Your task to perform on an android device: Open Google Chrome and click the shortcut for Amazon.com Image 0: 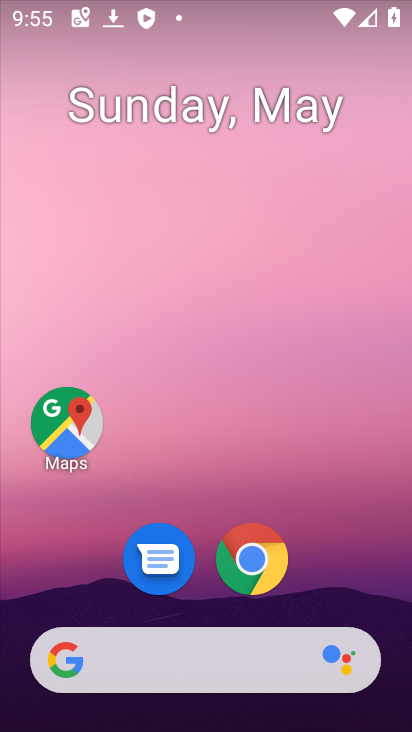
Step 0: press home button
Your task to perform on an android device: Open Google Chrome and click the shortcut for Amazon.com Image 1: 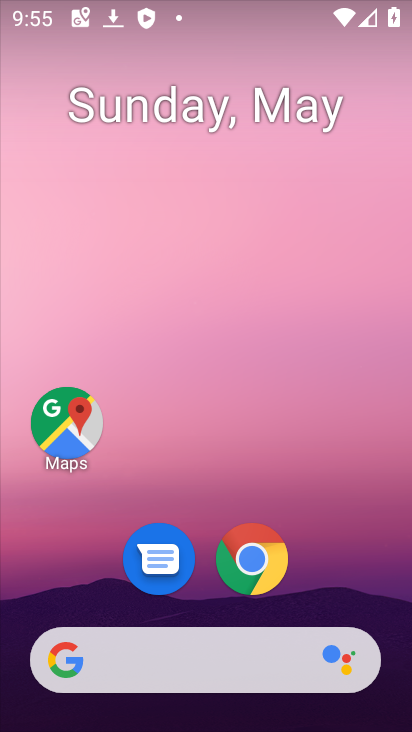
Step 1: click (348, 107)
Your task to perform on an android device: Open Google Chrome and click the shortcut for Amazon.com Image 2: 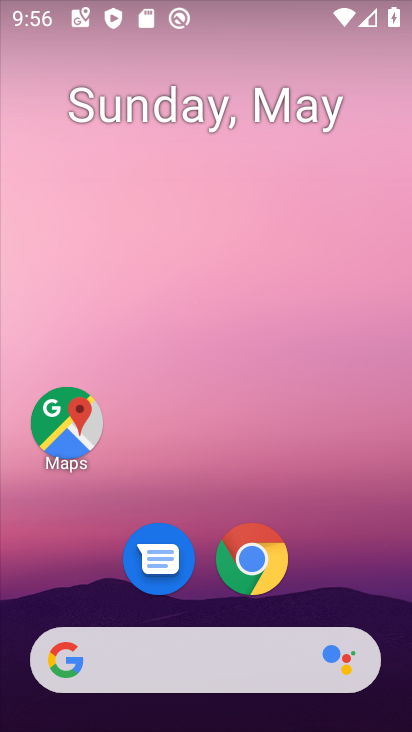
Step 2: click (257, 561)
Your task to perform on an android device: Open Google Chrome and click the shortcut for Amazon.com Image 3: 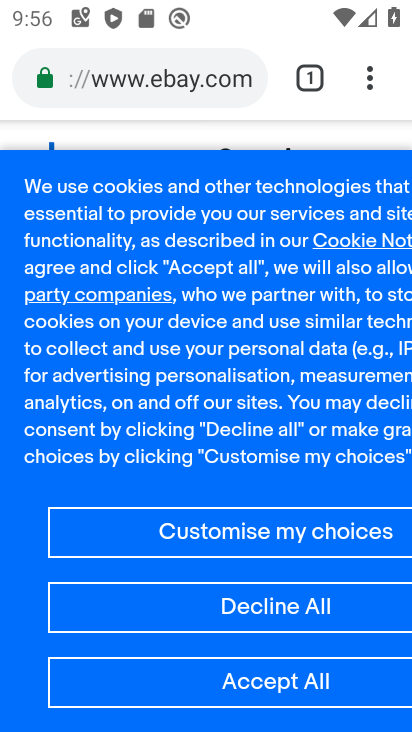
Step 3: click (318, 81)
Your task to perform on an android device: Open Google Chrome and click the shortcut for Amazon.com Image 4: 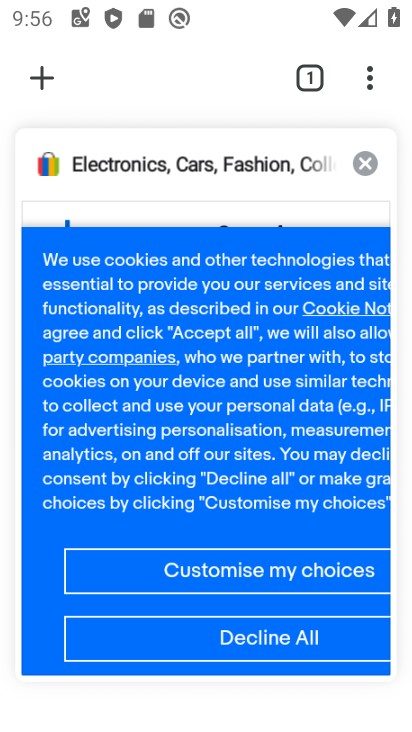
Step 4: click (41, 77)
Your task to perform on an android device: Open Google Chrome and click the shortcut for Amazon.com Image 5: 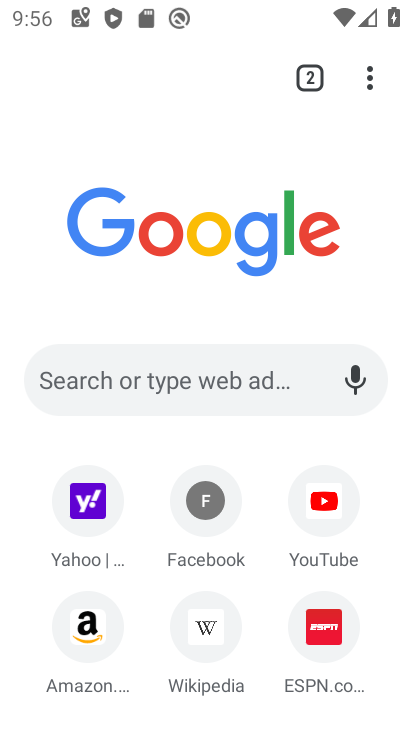
Step 5: click (87, 625)
Your task to perform on an android device: Open Google Chrome and click the shortcut for Amazon.com Image 6: 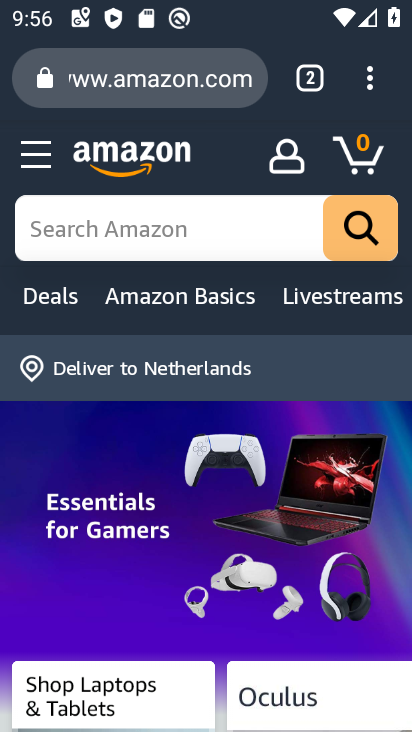
Step 6: task complete